Your task to perform on an android device: toggle improve location accuracy Image 0: 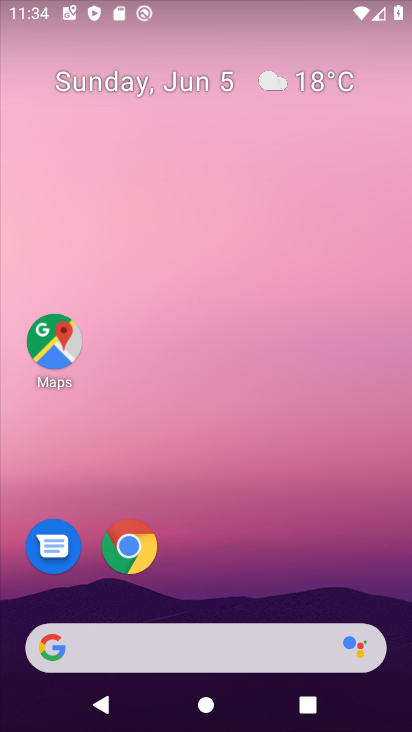
Step 0: drag from (265, 332) to (247, 111)
Your task to perform on an android device: toggle improve location accuracy Image 1: 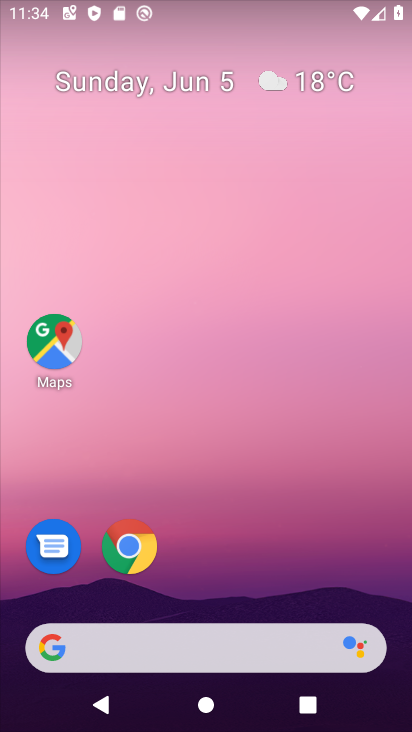
Step 1: drag from (234, 445) to (286, 1)
Your task to perform on an android device: toggle improve location accuracy Image 2: 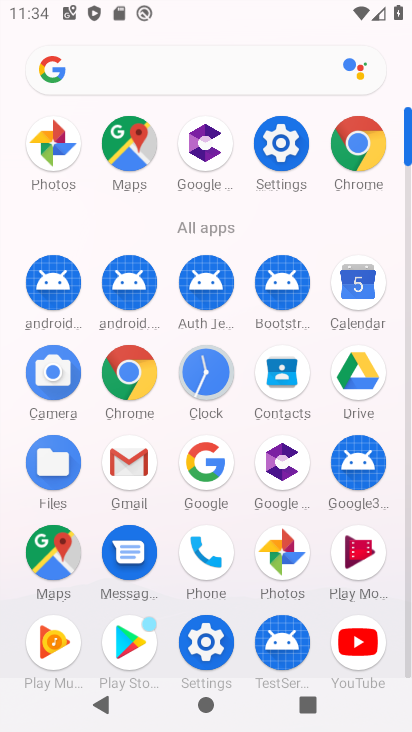
Step 2: click (277, 140)
Your task to perform on an android device: toggle improve location accuracy Image 3: 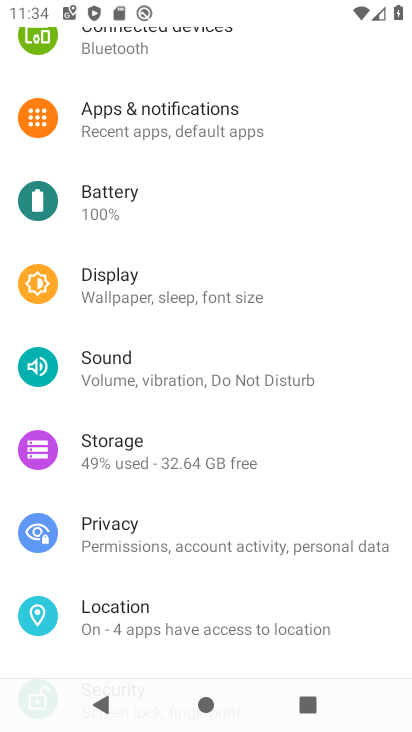
Step 3: click (272, 608)
Your task to perform on an android device: toggle improve location accuracy Image 4: 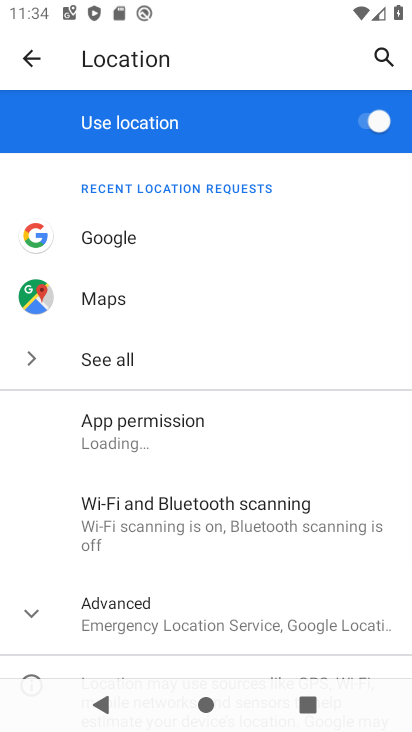
Step 4: drag from (315, 443) to (316, 239)
Your task to perform on an android device: toggle improve location accuracy Image 5: 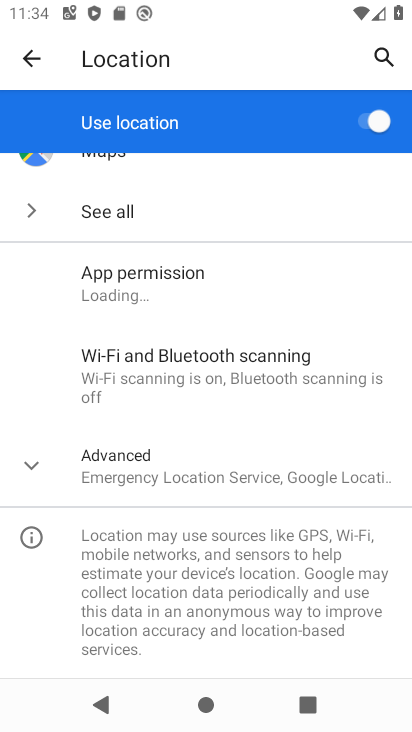
Step 5: click (36, 464)
Your task to perform on an android device: toggle improve location accuracy Image 6: 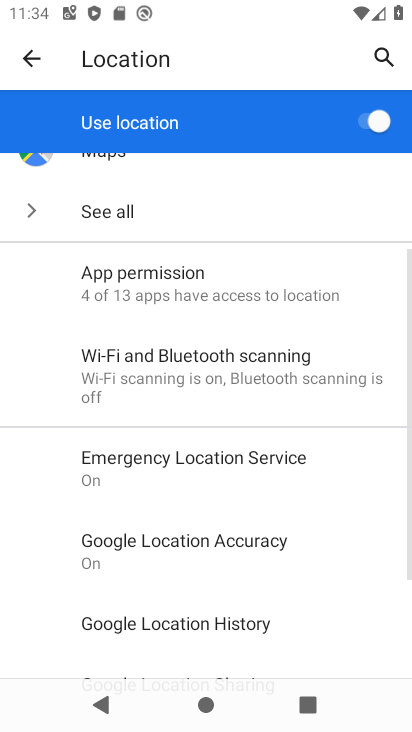
Step 6: click (235, 543)
Your task to perform on an android device: toggle improve location accuracy Image 7: 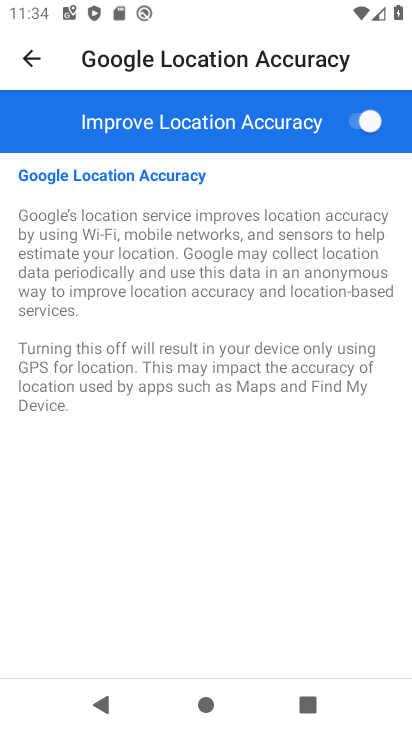
Step 7: click (364, 112)
Your task to perform on an android device: toggle improve location accuracy Image 8: 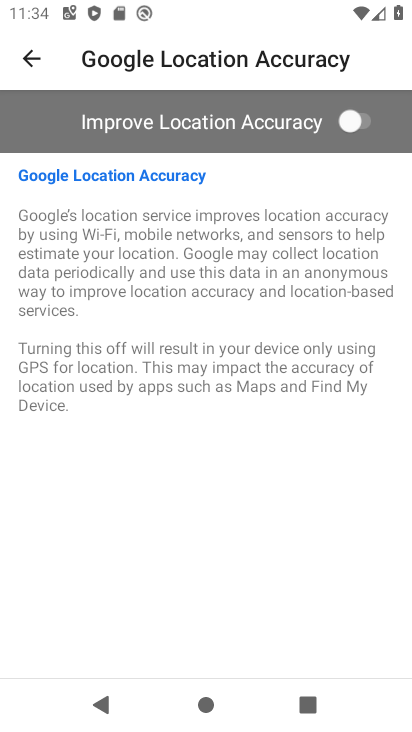
Step 8: task complete